Your task to perform on an android device: Empty the shopping cart on target.com. Add "logitech g933" to the cart on target.com, then select checkout. Image 0: 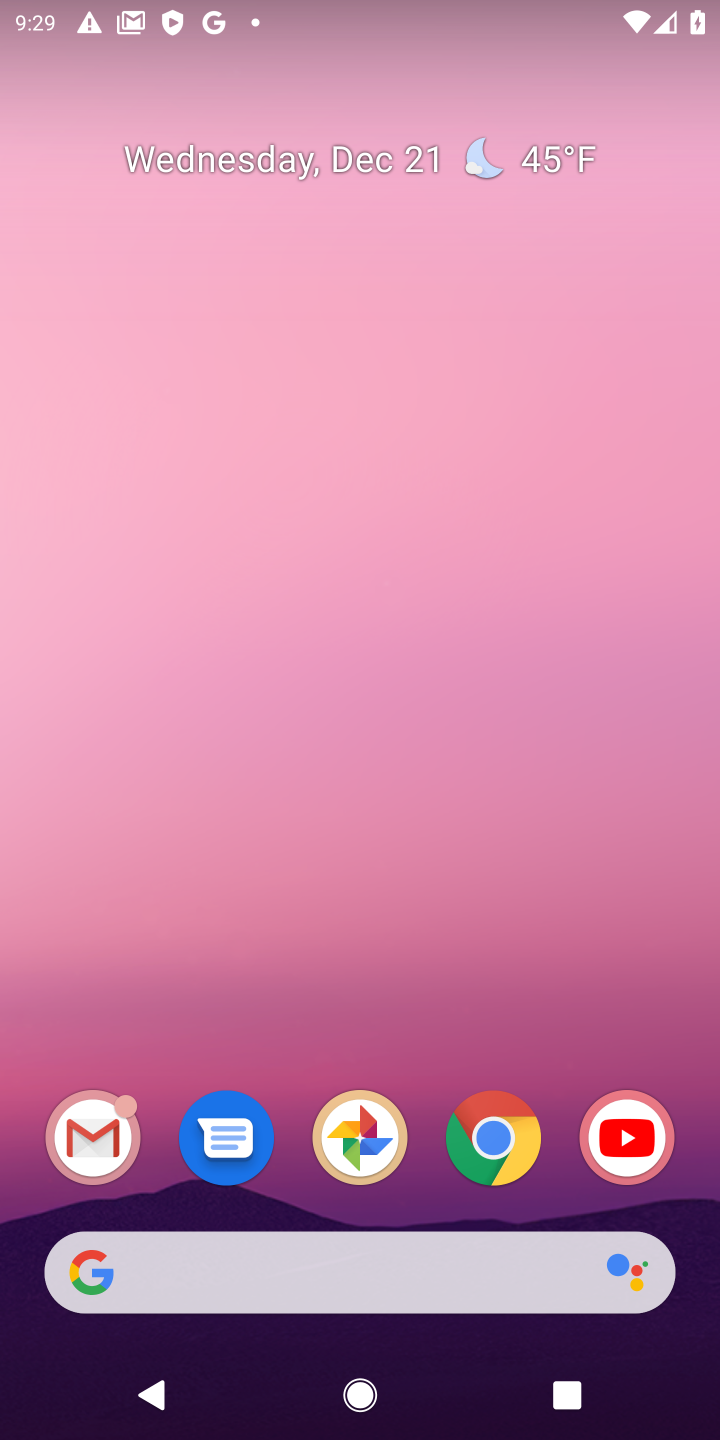
Step 0: click (495, 1146)
Your task to perform on an android device: Empty the shopping cart on target.com. Add "logitech g933" to the cart on target.com, then select checkout. Image 1: 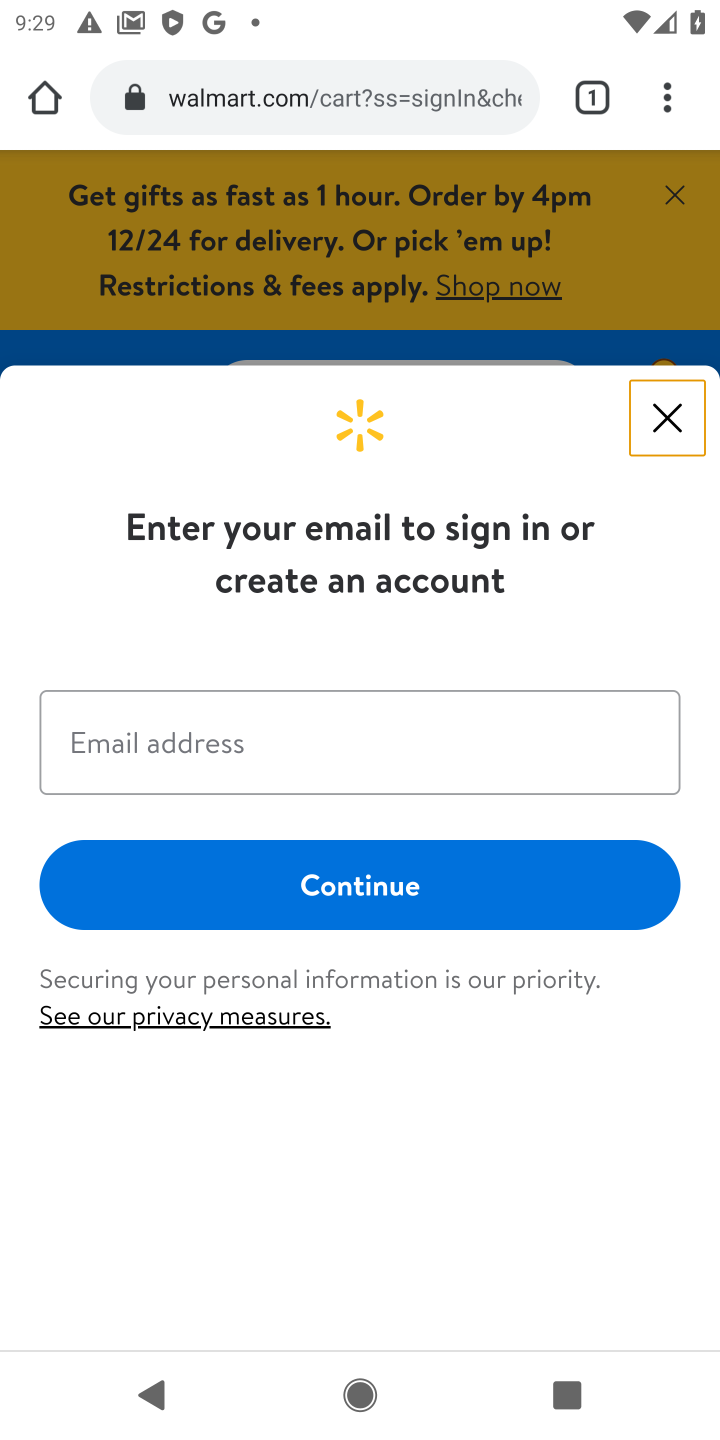
Step 1: click (249, 105)
Your task to perform on an android device: Empty the shopping cart on target.com. Add "logitech g933" to the cart on target.com, then select checkout. Image 2: 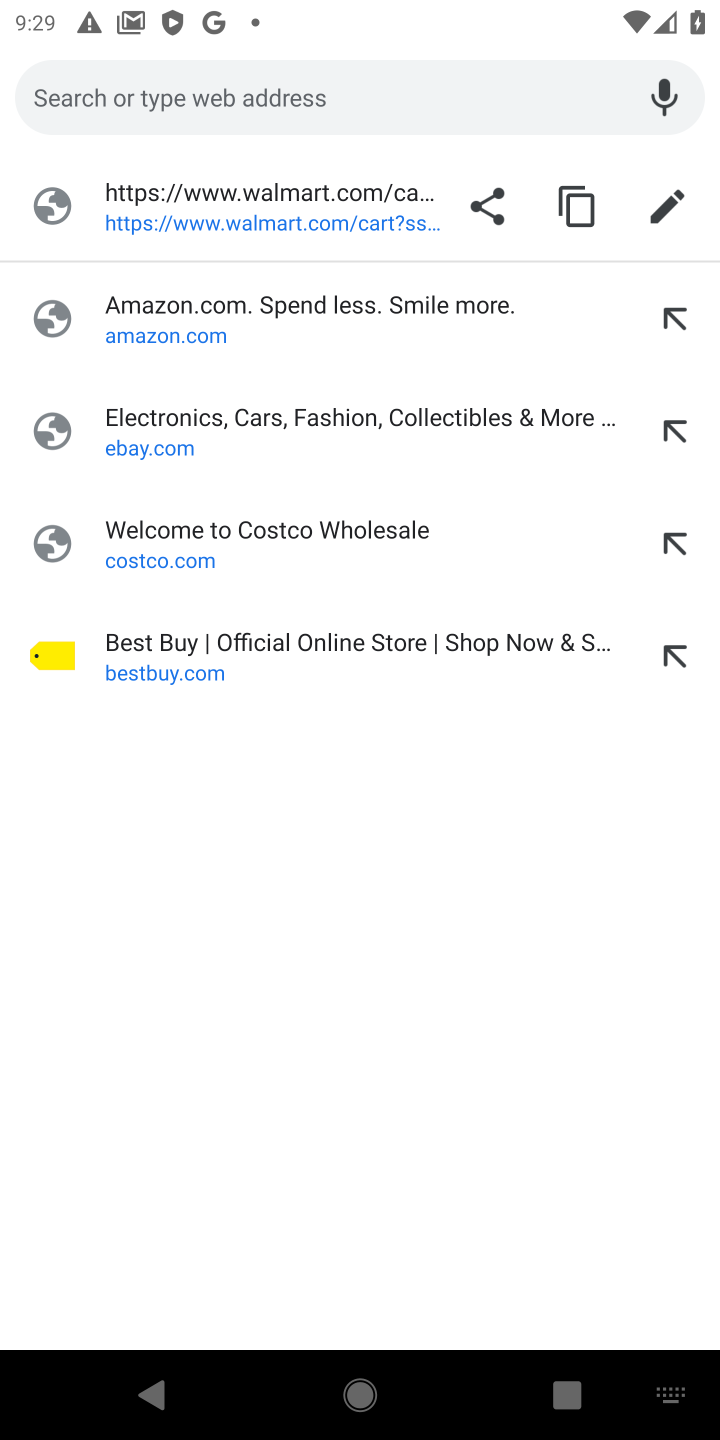
Step 2: type "target.com"
Your task to perform on an android device: Empty the shopping cart on target.com. Add "logitech g933" to the cart on target.com, then select checkout. Image 3: 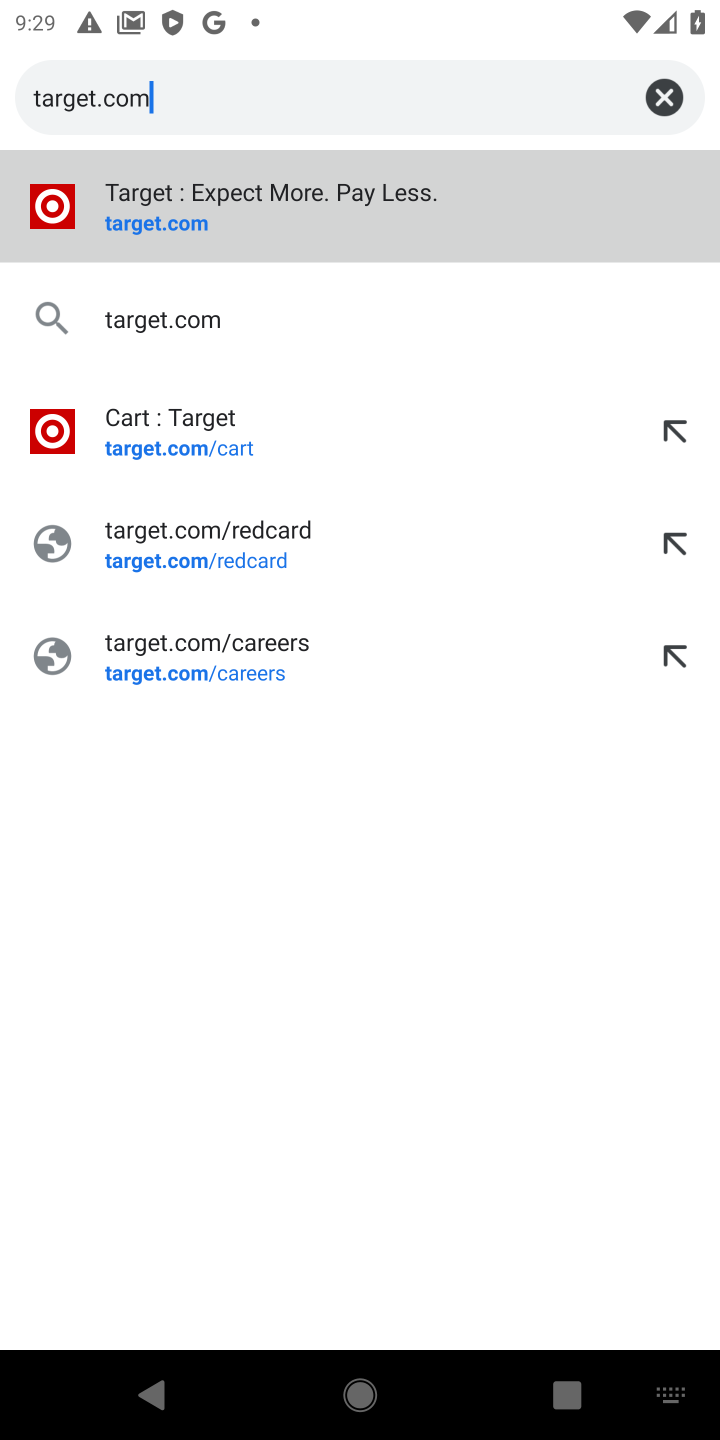
Step 3: click (135, 220)
Your task to perform on an android device: Empty the shopping cart on target.com. Add "logitech g933" to the cart on target.com, then select checkout. Image 4: 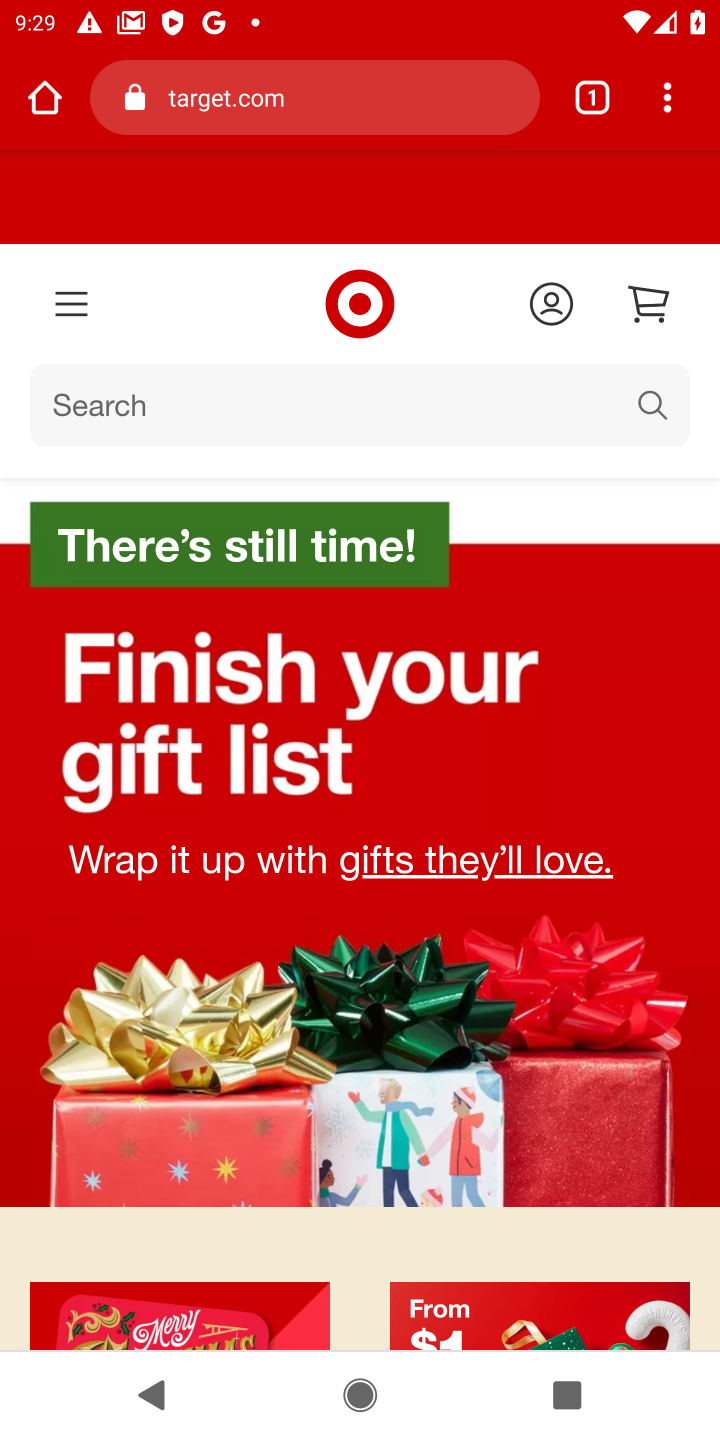
Step 4: click (652, 306)
Your task to perform on an android device: Empty the shopping cart on target.com. Add "logitech g933" to the cart on target.com, then select checkout. Image 5: 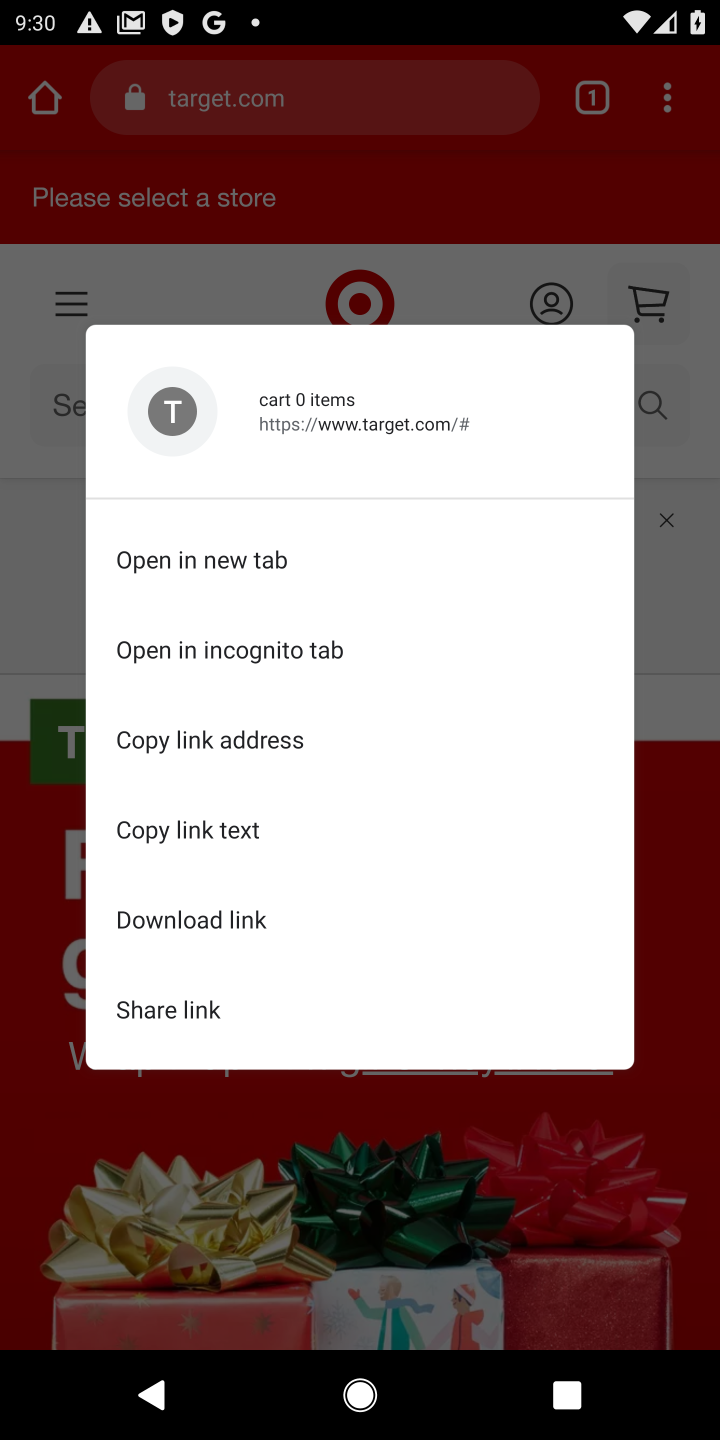
Step 5: click (652, 306)
Your task to perform on an android device: Empty the shopping cart on target.com. Add "logitech g933" to the cart on target.com, then select checkout. Image 6: 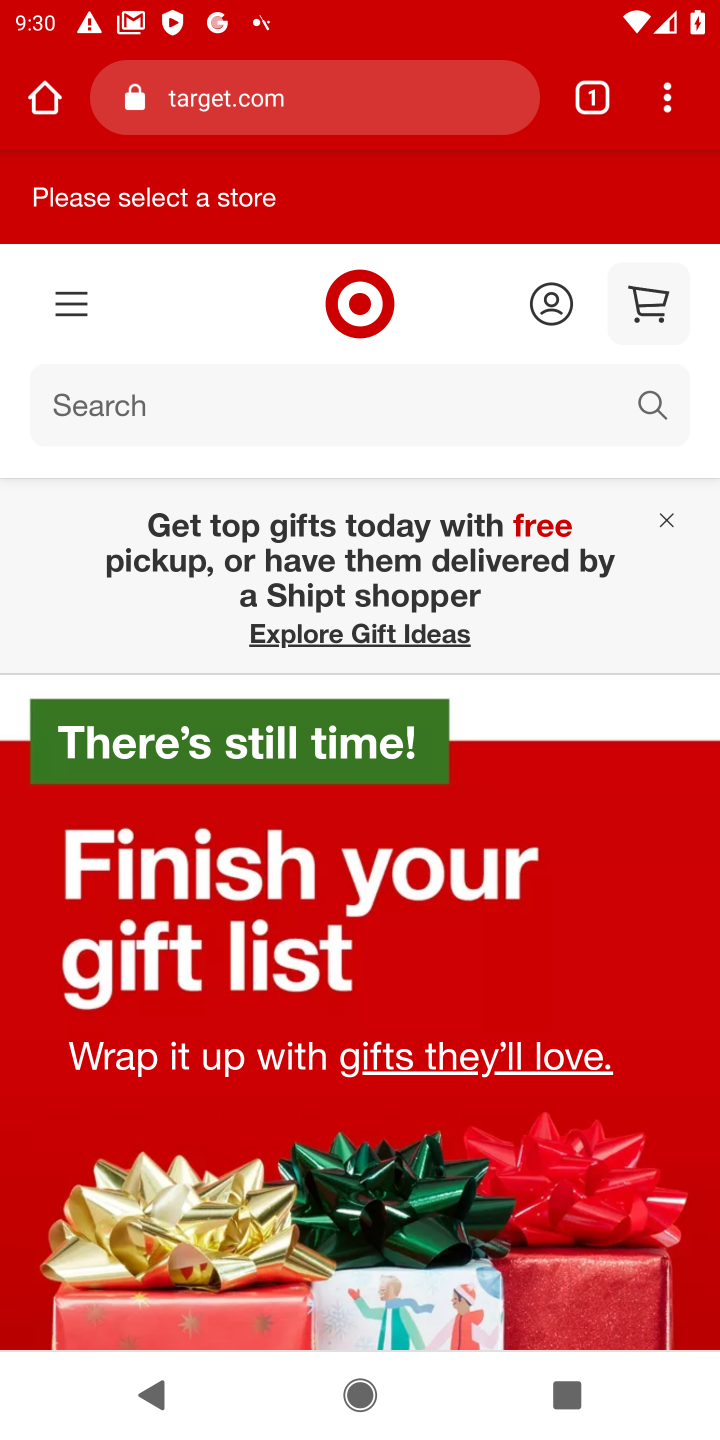
Step 6: click (652, 306)
Your task to perform on an android device: Empty the shopping cart on target.com. Add "logitech g933" to the cart on target.com, then select checkout. Image 7: 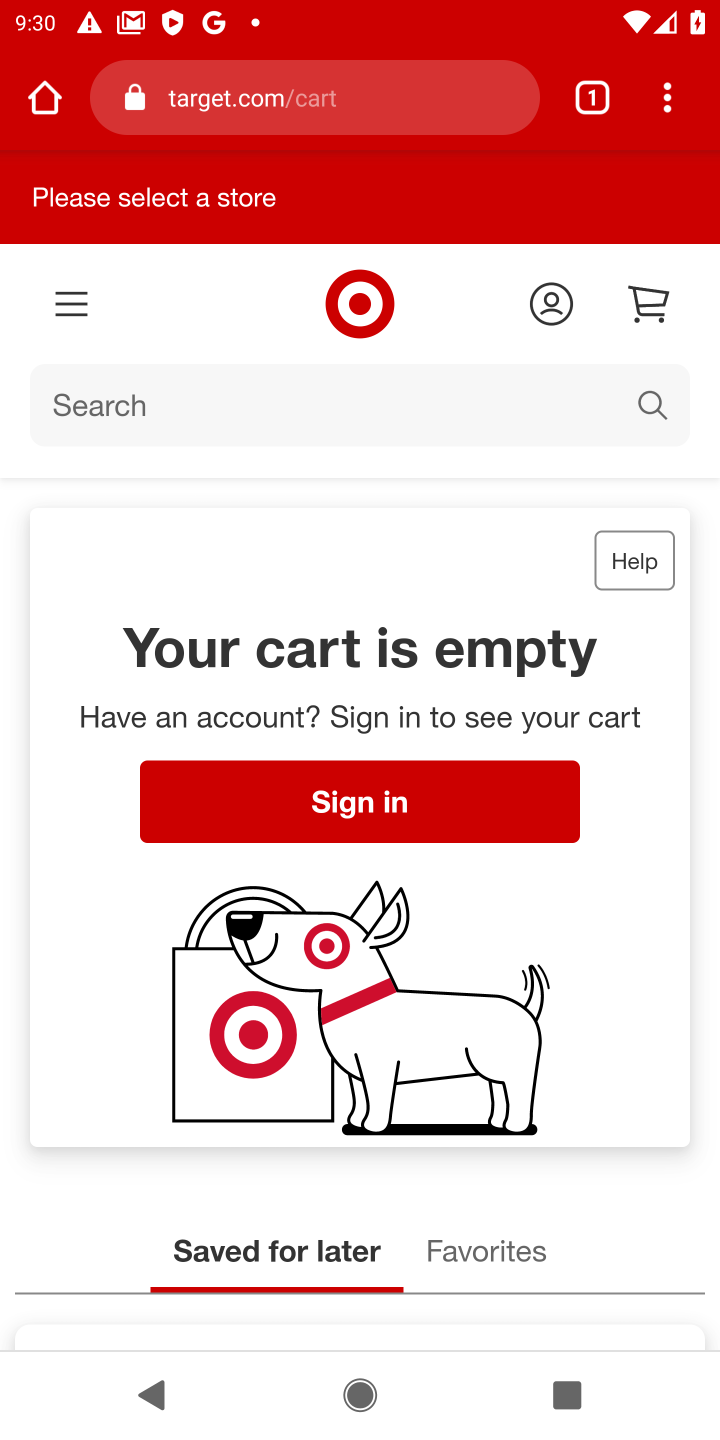
Step 7: click (108, 408)
Your task to perform on an android device: Empty the shopping cart on target.com. Add "logitech g933" to the cart on target.com, then select checkout. Image 8: 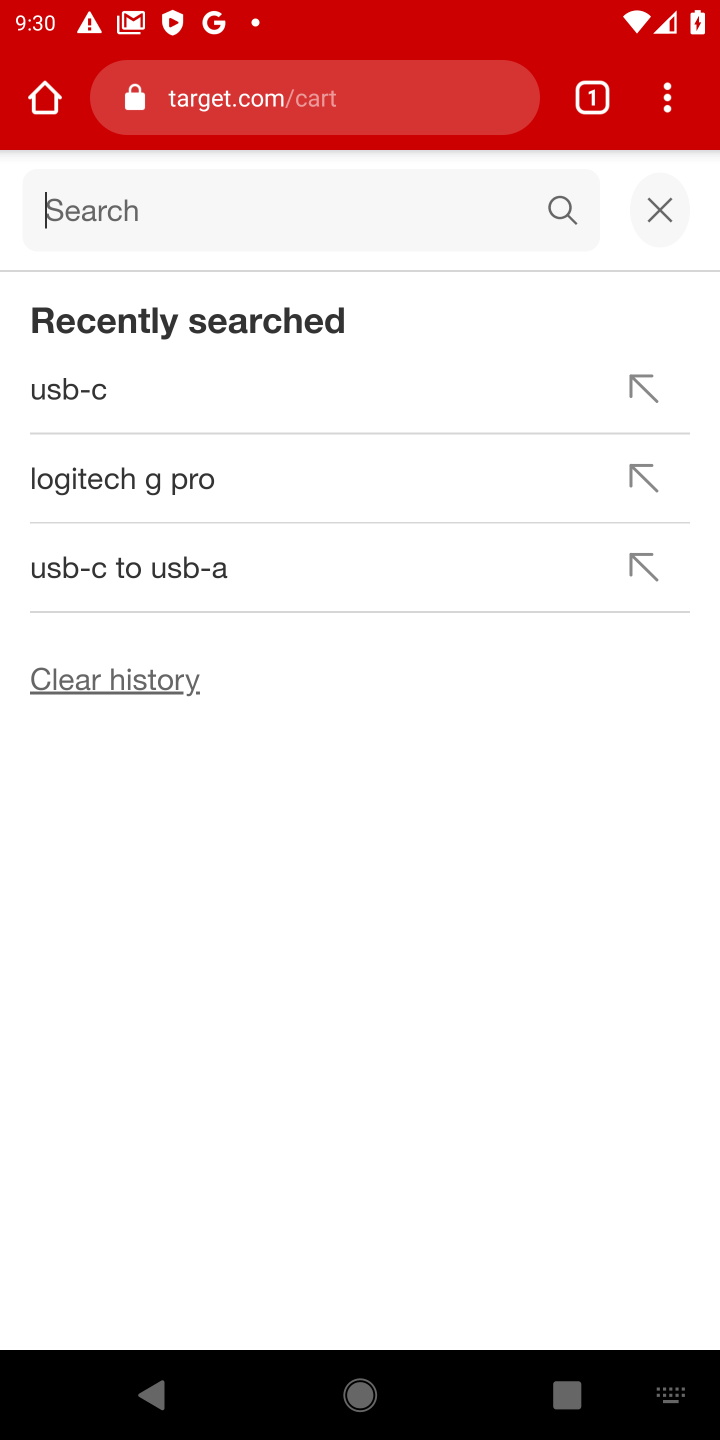
Step 8: type "logitech g933"
Your task to perform on an android device: Empty the shopping cart on target.com. Add "logitech g933" to the cart on target.com, then select checkout. Image 9: 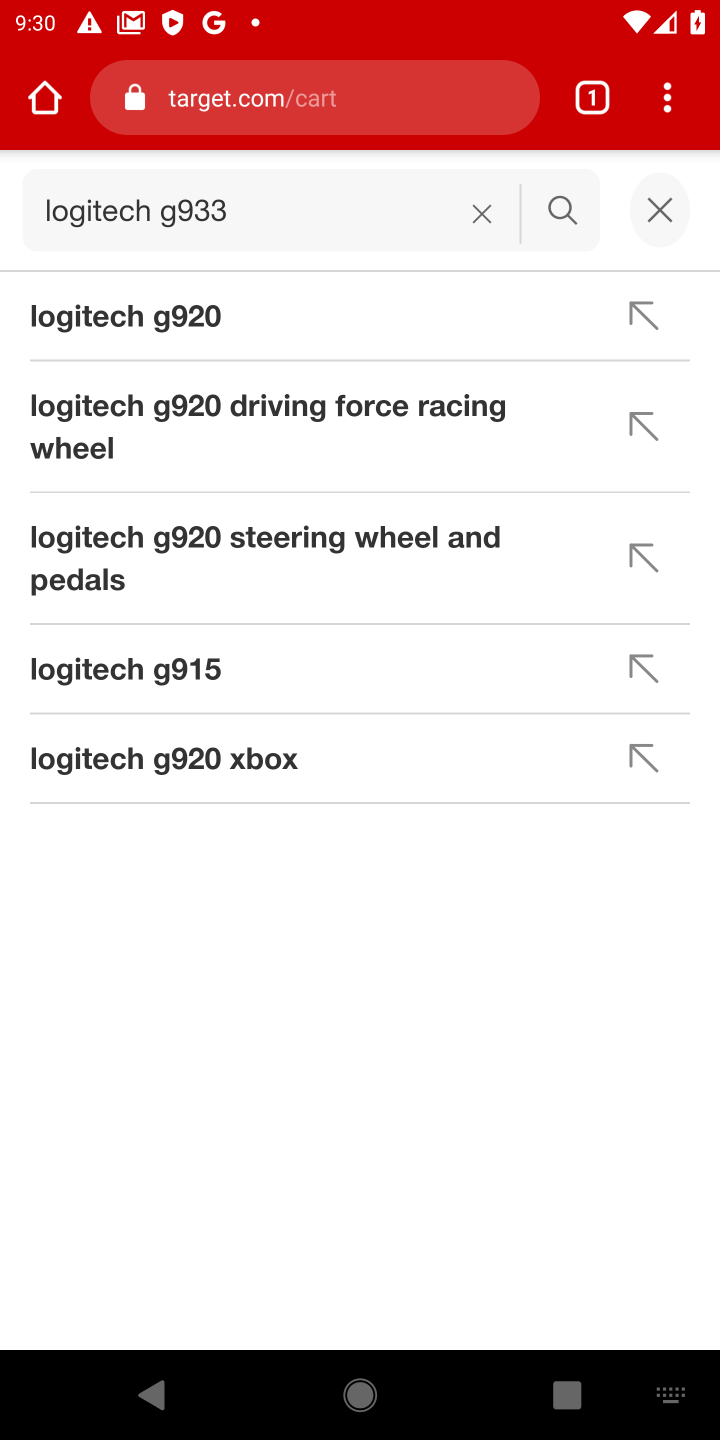
Step 9: click (553, 208)
Your task to perform on an android device: Empty the shopping cart on target.com. Add "logitech g933" to the cart on target.com, then select checkout. Image 10: 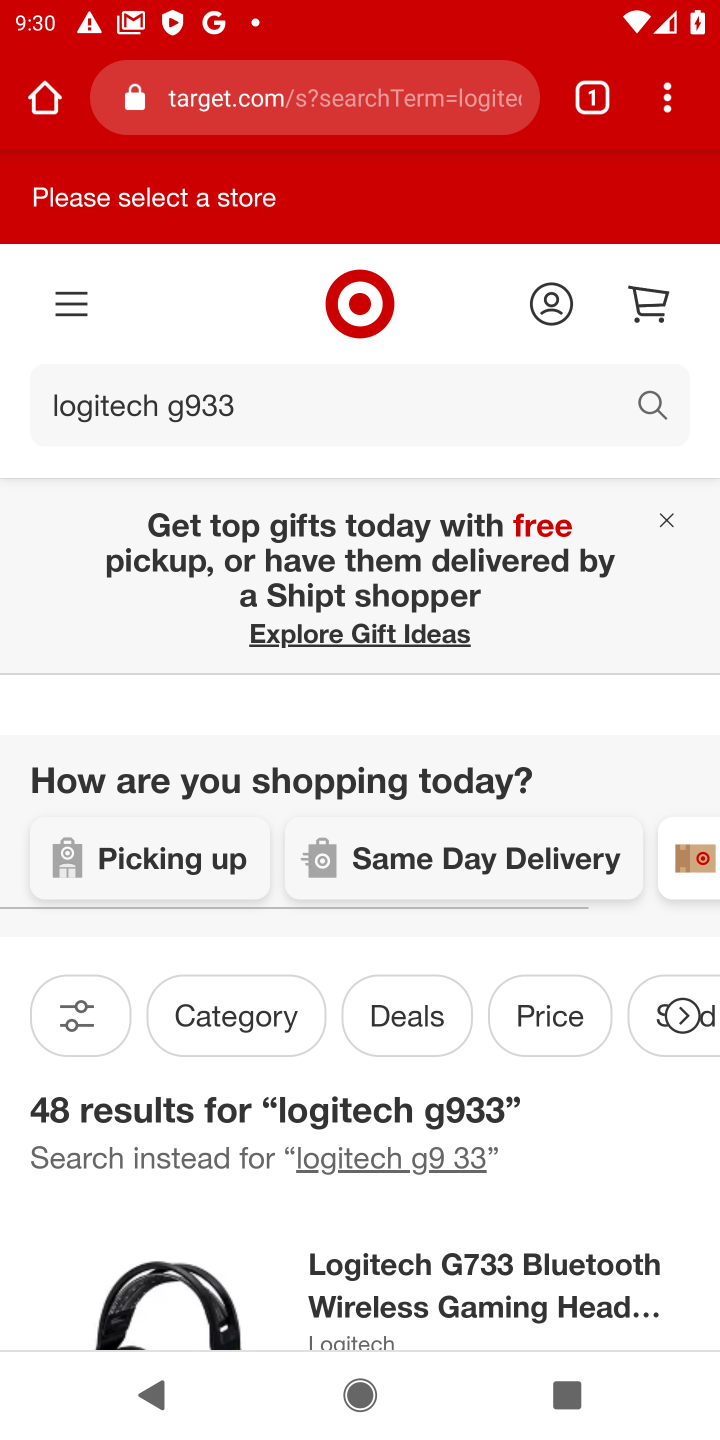
Step 10: task complete